Your task to perform on an android device: manage bookmarks in the chrome app Image 0: 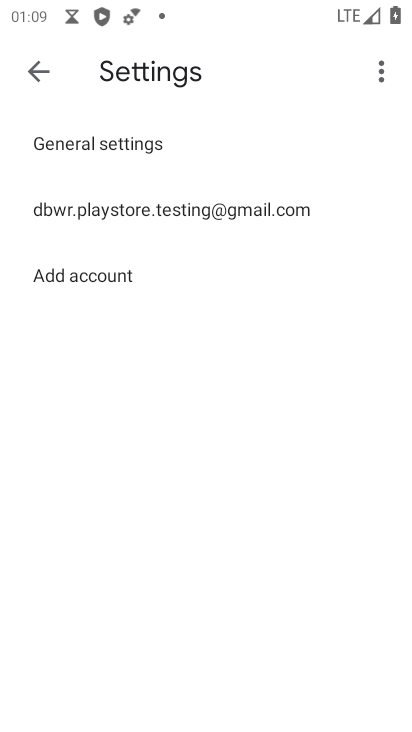
Step 0: press home button
Your task to perform on an android device: manage bookmarks in the chrome app Image 1: 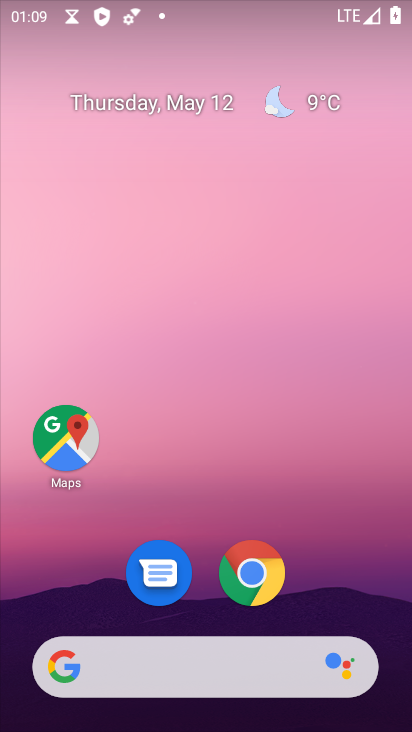
Step 1: click (256, 572)
Your task to perform on an android device: manage bookmarks in the chrome app Image 2: 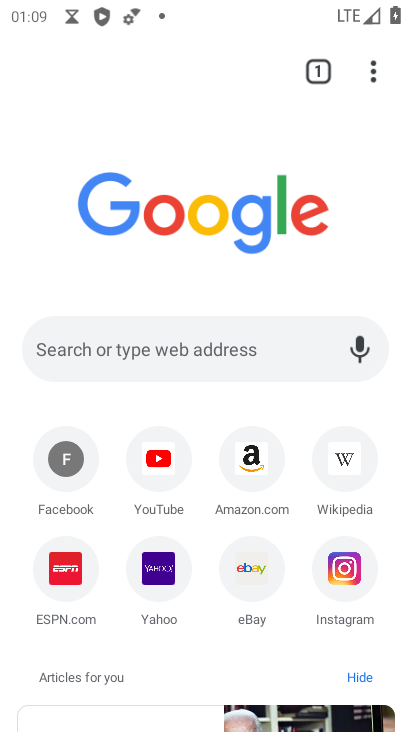
Step 2: click (368, 71)
Your task to perform on an android device: manage bookmarks in the chrome app Image 3: 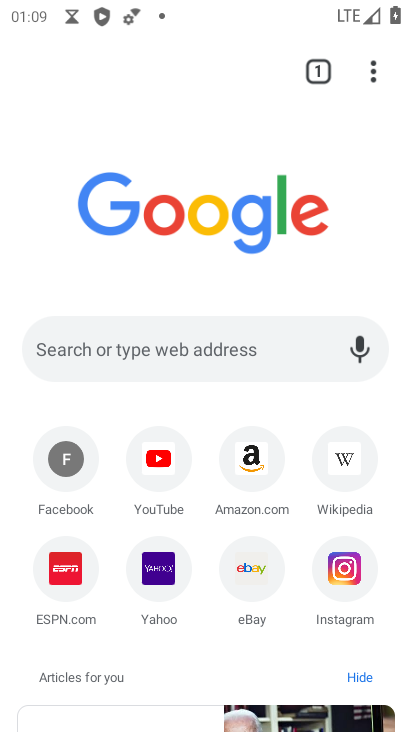
Step 3: click (368, 71)
Your task to perform on an android device: manage bookmarks in the chrome app Image 4: 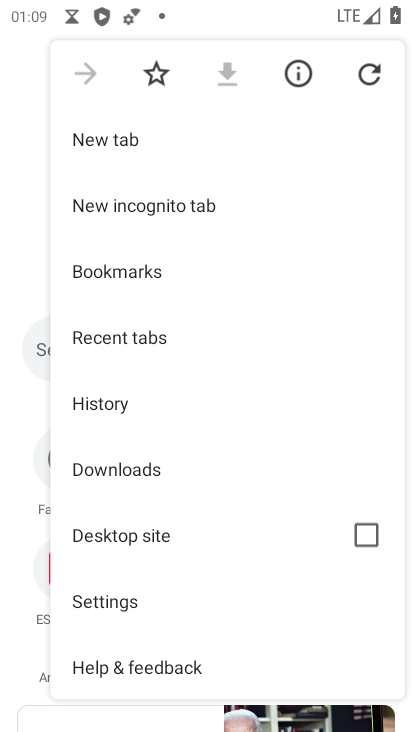
Step 4: click (170, 280)
Your task to perform on an android device: manage bookmarks in the chrome app Image 5: 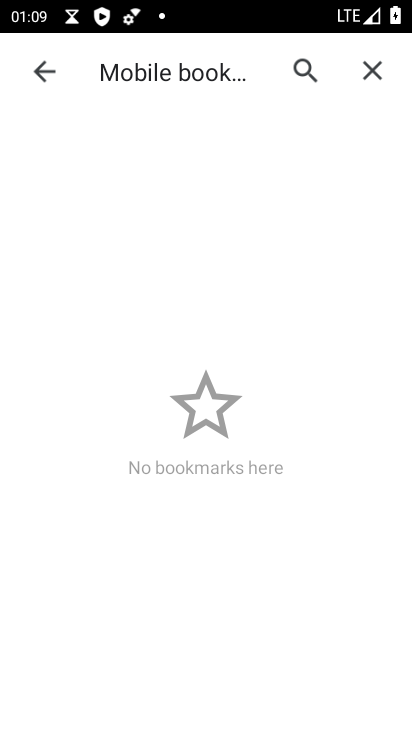
Step 5: click (380, 56)
Your task to perform on an android device: manage bookmarks in the chrome app Image 6: 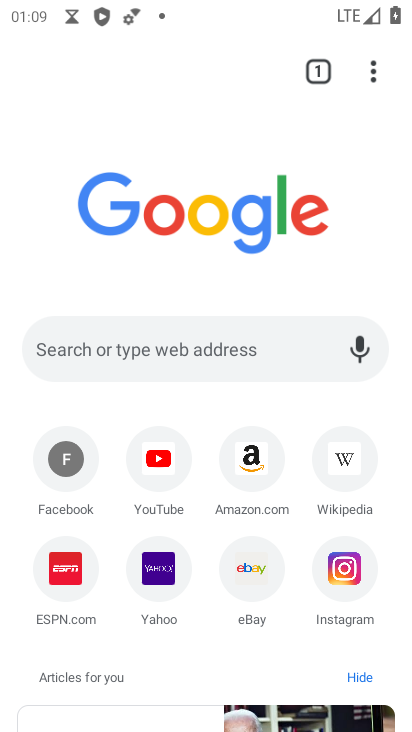
Step 6: click (386, 59)
Your task to perform on an android device: manage bookmarks in the chrome app Image 7: 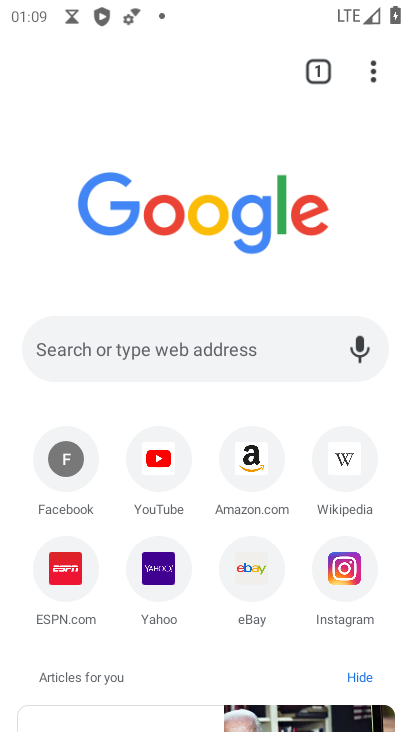
Step 7: click (378, 79)
Your task to perform on an android device: manage bookmarks in the chrome app Image 8: 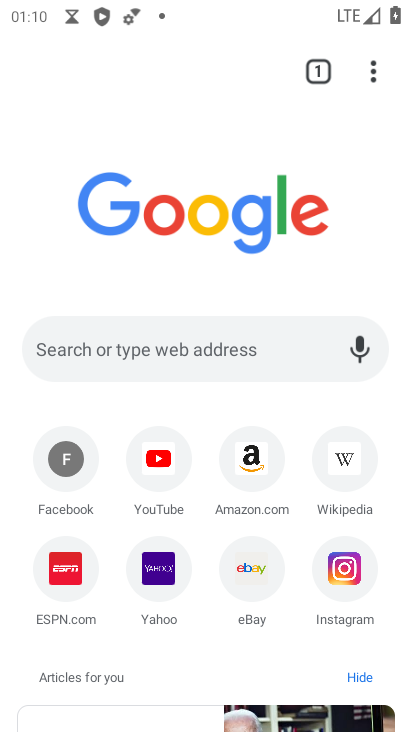
Step 8: click (372, 79)
Your task to perform on an android device: manage bookmarks in the chrome app Image 9: 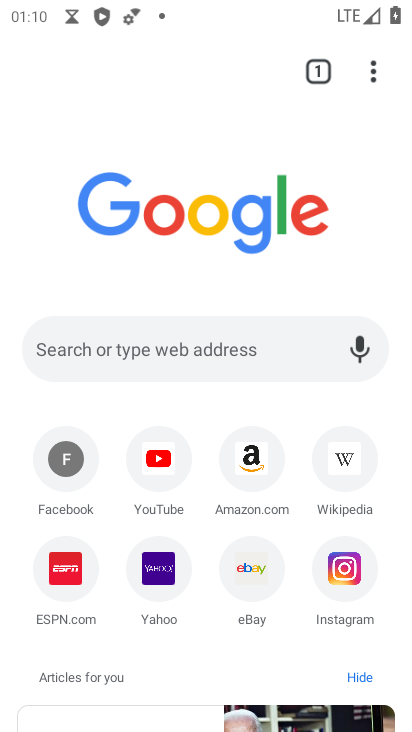
Step 9: click (383, 62)
Your task to perform on an android device: manage bookmarks in the chrome app Image 10: 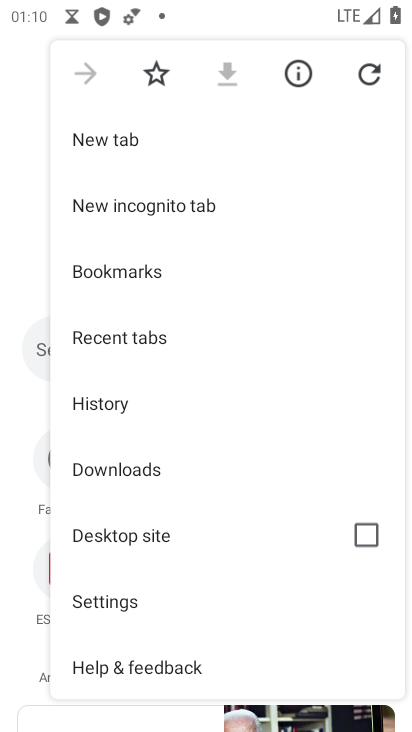
Step 10: click (147, 76)
Your task to perform on an android device: manage bookmarks in the chrome app Image 11: 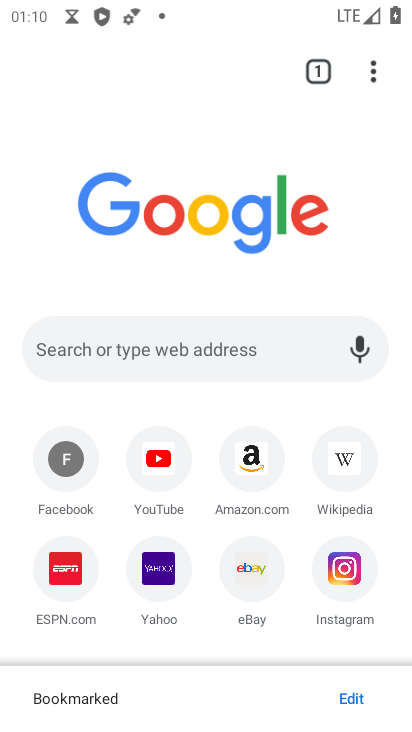
Step 11: task complete